Your task to perform on an android device: turn notification dots off Image 0: 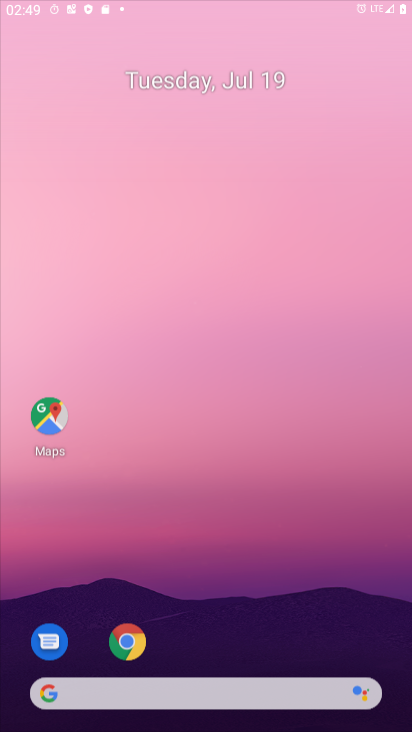
Step 0: click (206, 257)
Your task to perform on an android device: turn notification dots off Image 1: 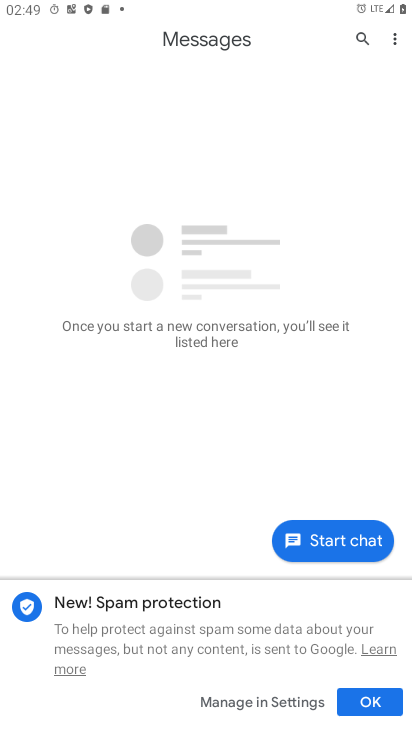
Step 1: press home button
Your task to perform on an android device: turn notification dots off Image 2: 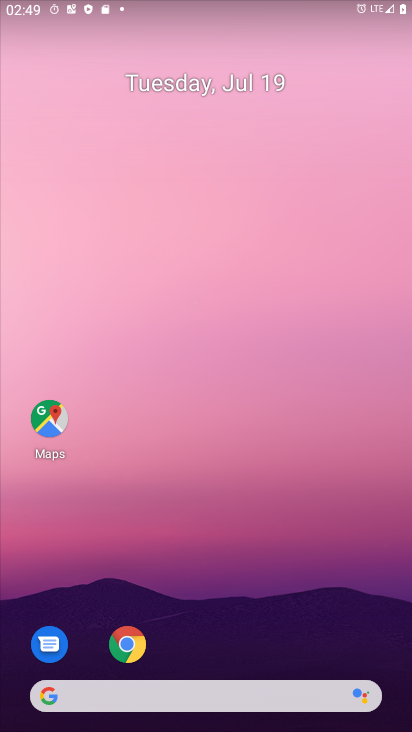
Step 2: drag from (220, 715) to (198, 352)
Your task to perform on an android device: turn notification dots off Image 3: 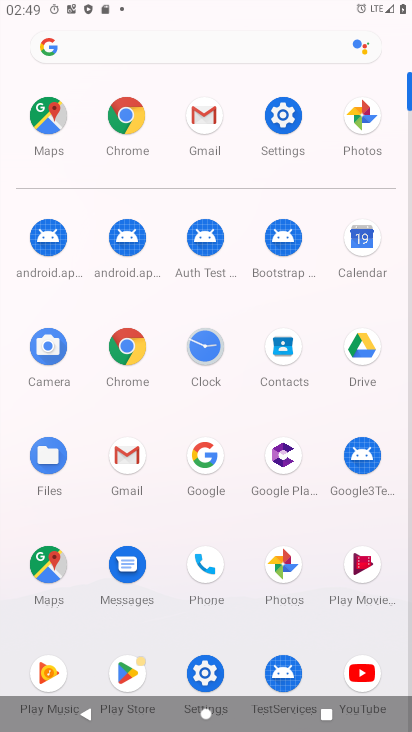
Step 3: click (300, 113)
Your task to perform on an android device: turn notification dots off Image 4: 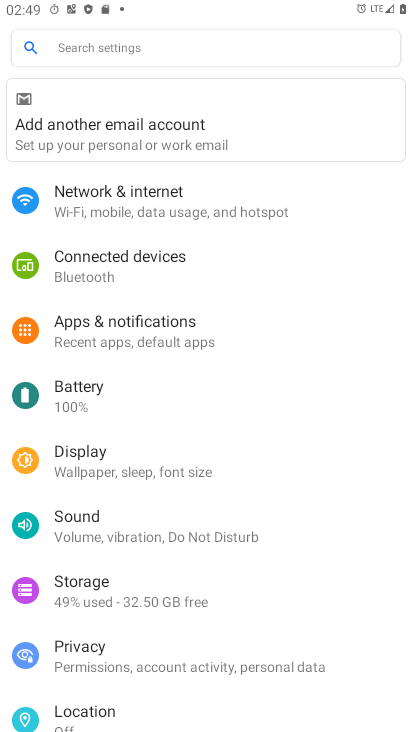
Step 4: click (127, 334)
Your task to perform on an android device: turn notification dots off Image 5: 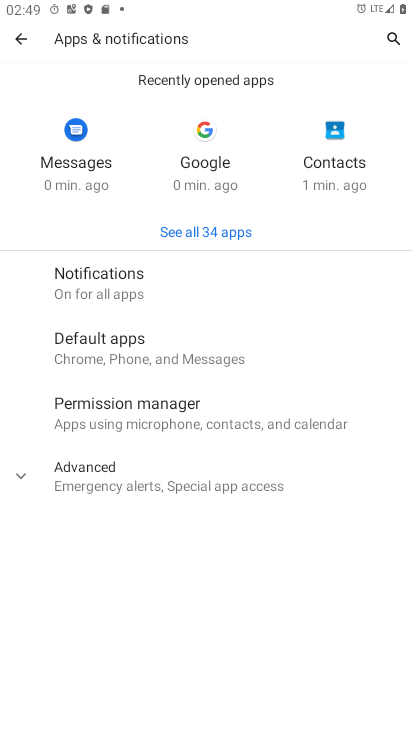
Step 5: click (87, 287)
Your task to perform on an android device: turn notification dots off Image 6: 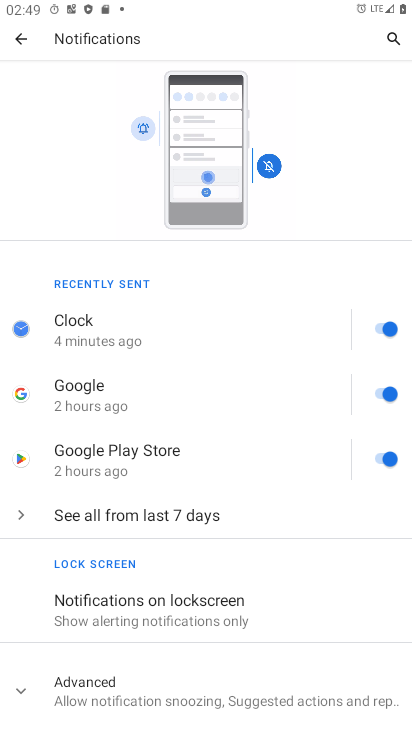
Step 6: drag from (230, 658) to (212, 475)
Your task to perform on an android device: turn notification dots off Image 7: 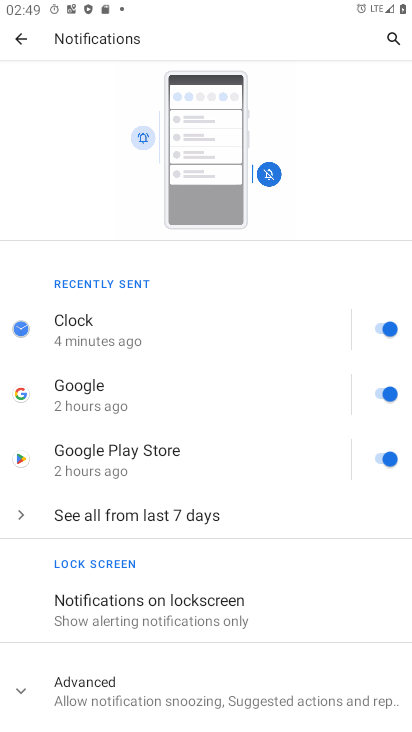
Step 7: drag from (176, 671) to (165, 598)
Your task to perform on an android device: turn notification dots off Image 8: 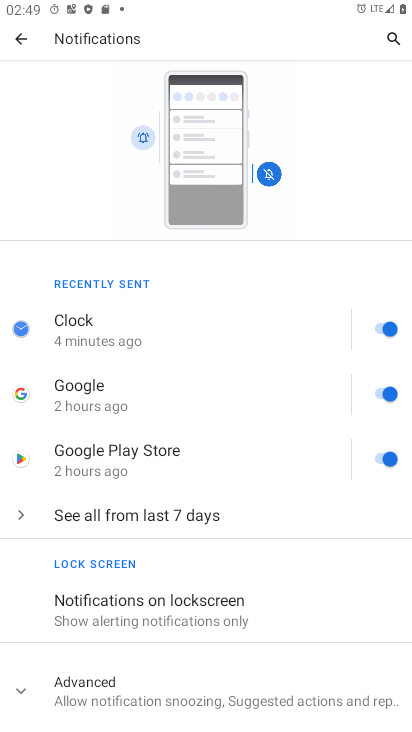
Step 8: click (150, 493)
Your task to perform on an android device: turn notification dots off Image 9: 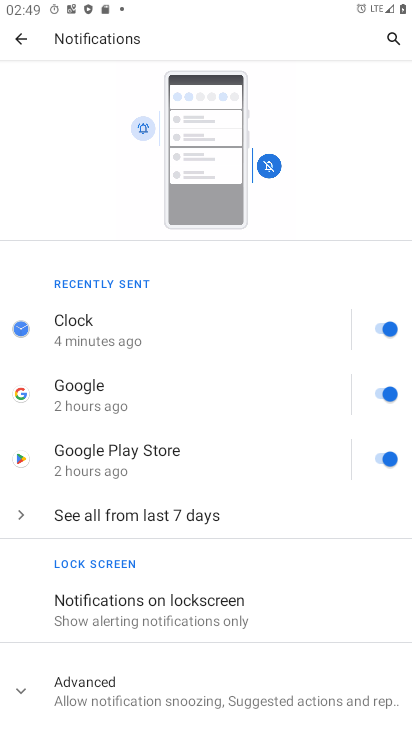
Step 9: click (88, 690)
Your task to perform on an android device: turn notification dots off Image 10: 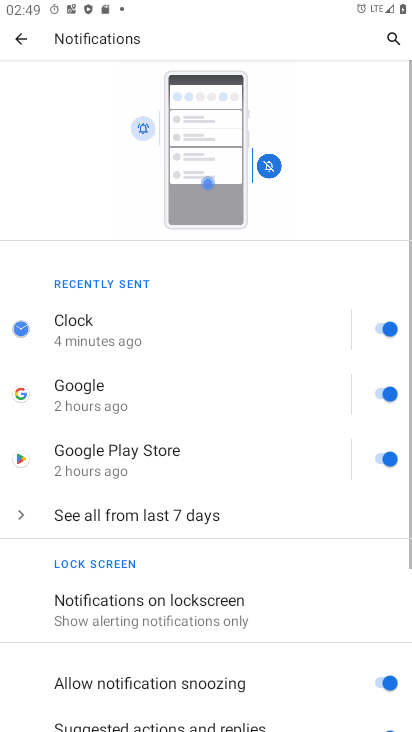
Step 10: drag from (211, 690) to (196, 472)
Your task to perform on an android device: turn notification dots off Image 11: 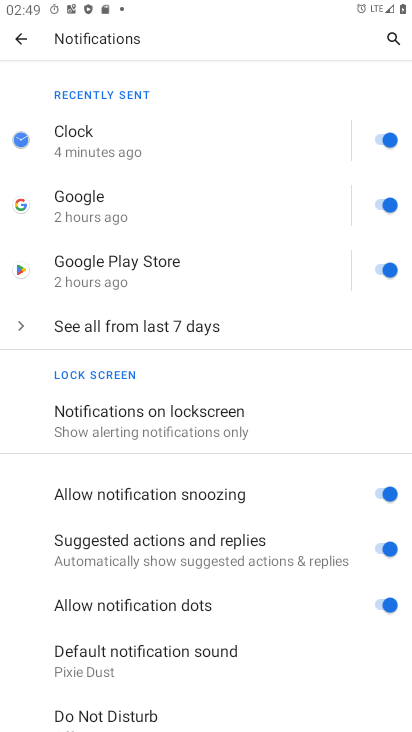
Step 11: click (389, 604)
Your task to perform on an android device: turn notification dots off Image 12: 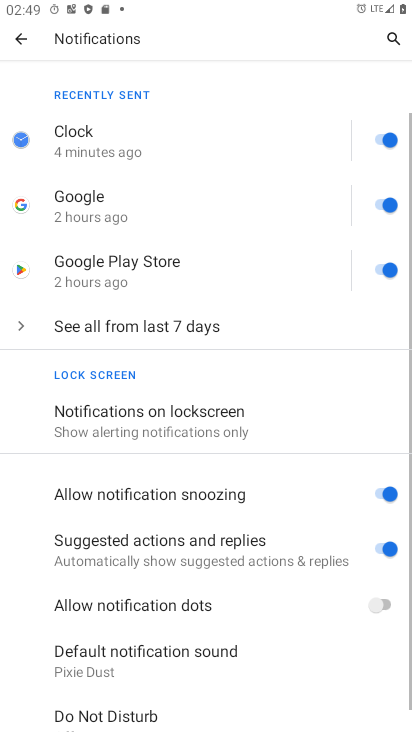
Step 12: task complete